Your task to perform on an android device: Turn off the flashlight Image 0: 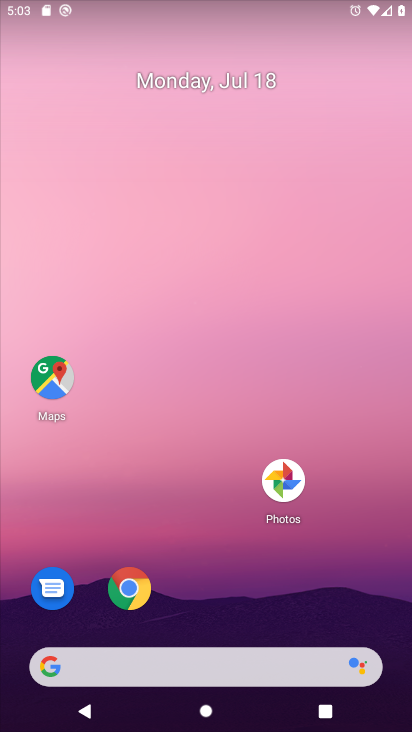
Step 0: drag from (251, 699) to (229, 211)
Your task to perform on an android device: Turn off the flashlight Image 1: 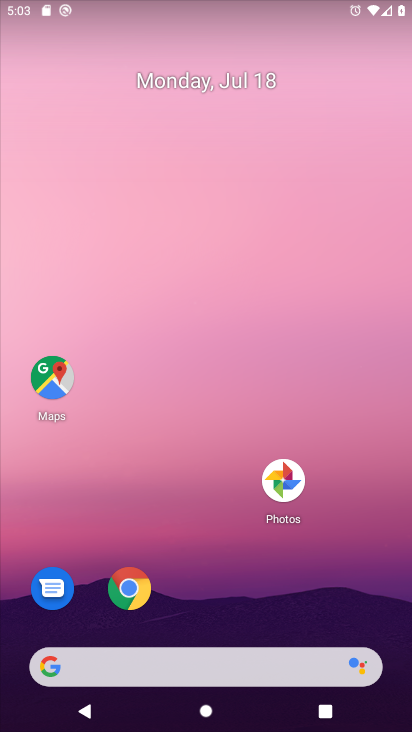
Step 1: drag from (270, 479) to (252, 124)
Your task to perform on an android device: Turn off the flashlight Image 2: 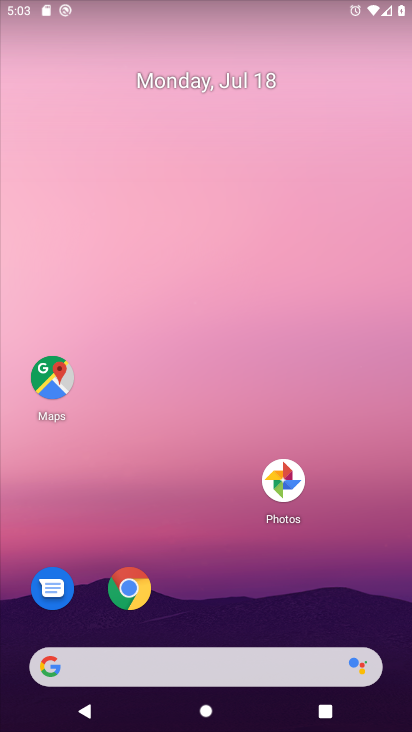
Step 2: drag from (201, 493) to (194, 173)
Your task to perform on an android device: Turn off the flashlight Image 3: 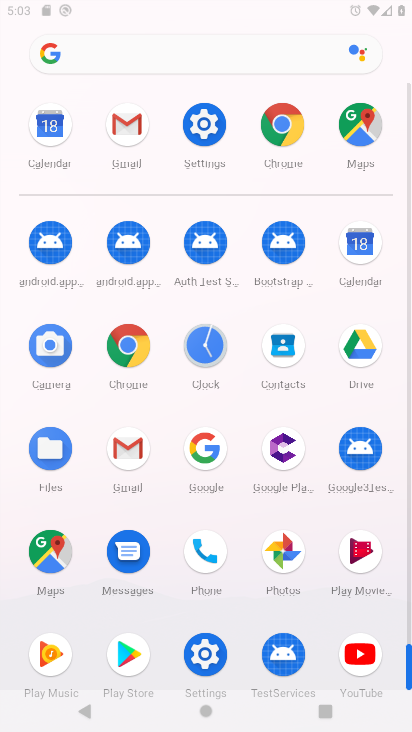
Step 3: drag from (206, 480) to (211, 107)
Your task to perform on an android device: Turn off the flashlight Image 4: 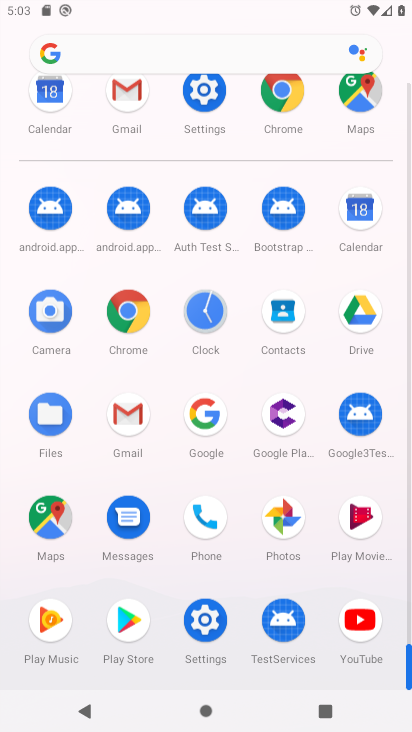
Step 4: click (233, 65)
Your task to perform on an android device: Turn off the flashlight Image 5: 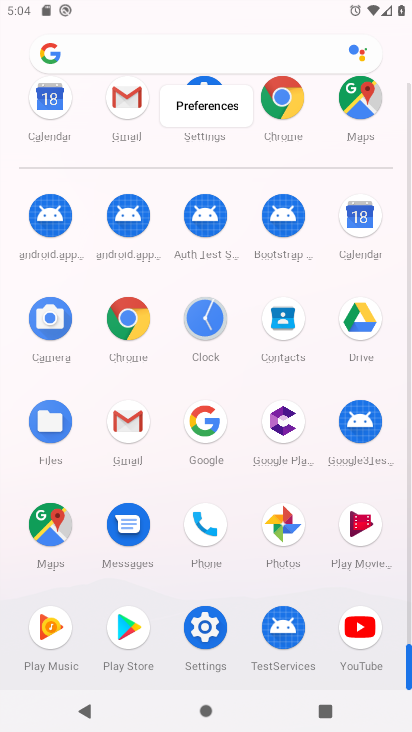
Step 5: task complete